Your task to perform on an android device: Do I have any events today? Image 0: 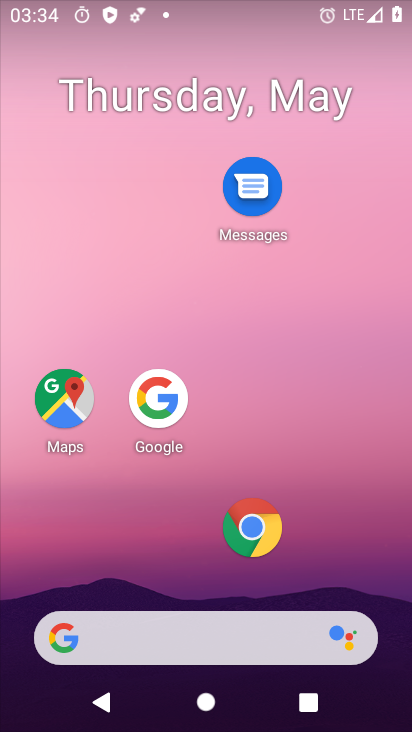
Step 0: drag from (209, 566) to (213, 285)
Your task to perform on an android device: Do I have any events today? Image 1: 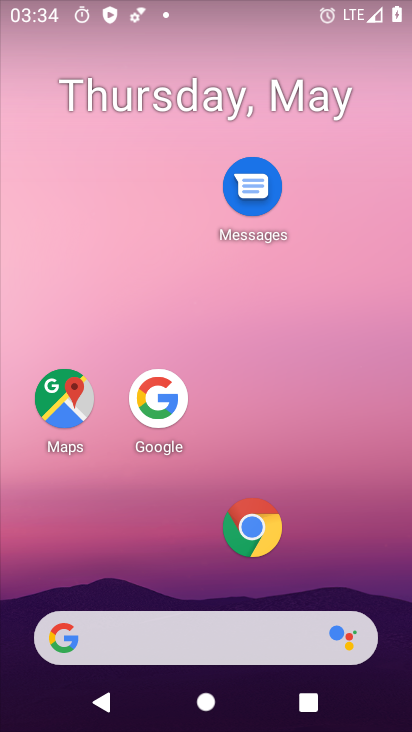
Step 1: drag from (206, 577) to (227, 235)
Your task to perform on an android device: Do I have any events today? Image 2: 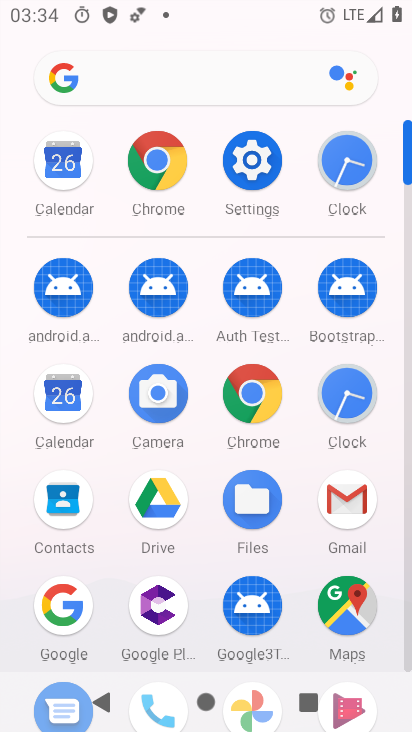
Step 2: click (66, 392)
Your task to perform on an android device: Do I have any events today? Image 3: 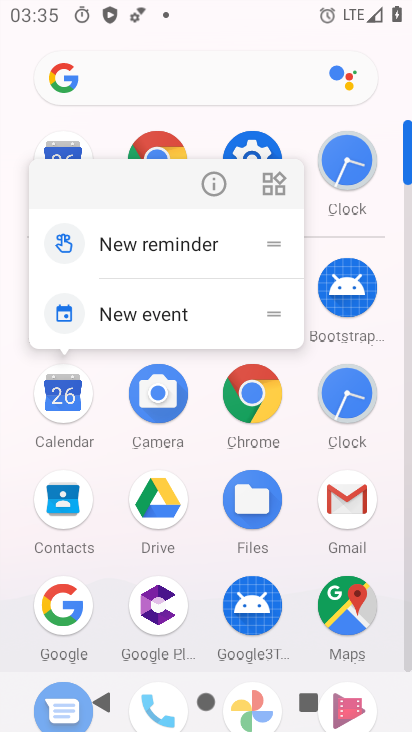
Step 3: click (205, 183)
Your task to perform on an android device: Do I have any events today? Image 4: 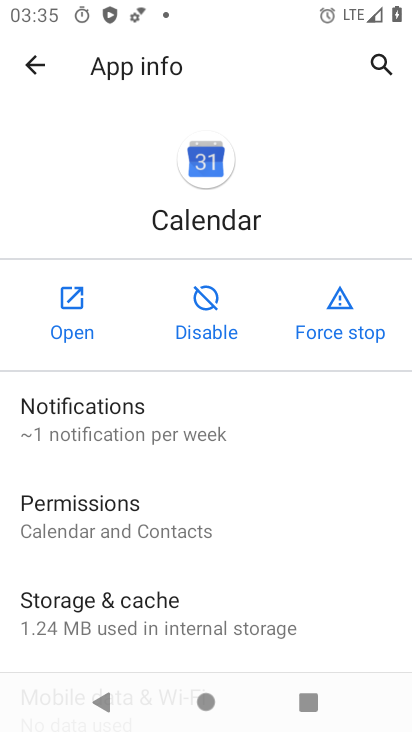
Step 4: click (66, 302)
Your task to perform on an android device: Do I have any events today? Image 5: 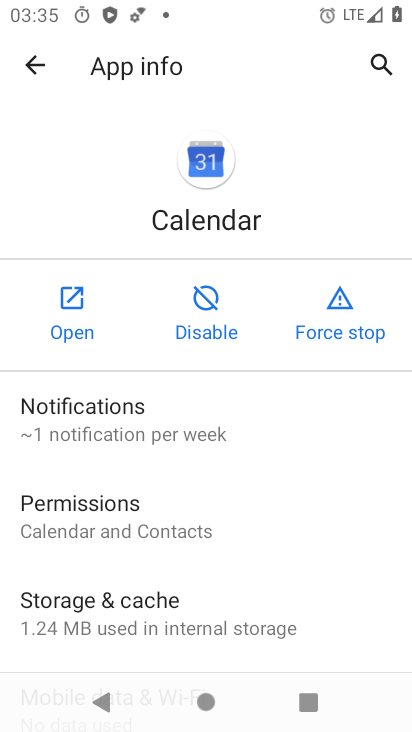
Step 5: click (66, 302)
Your task to perform on an android device: Do I have any events today? Image 6: 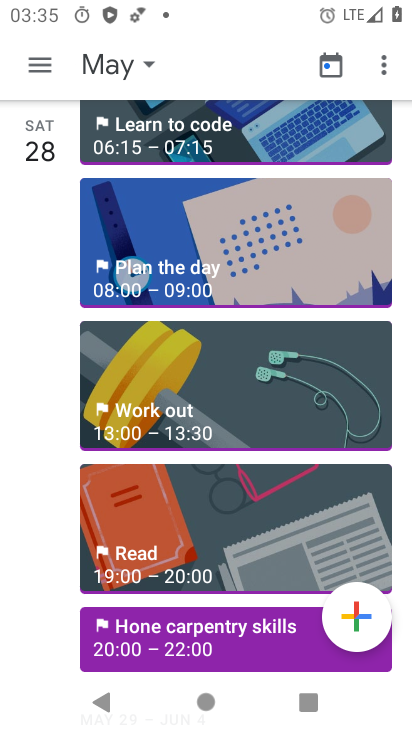
Step 6: click (139, 65)
Your task to perform on an android device: Do I have any events today? Image 7: 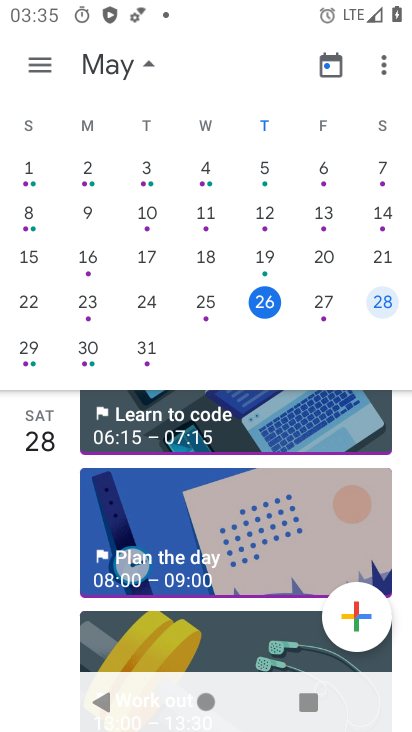
Step 7: click (272, 295)
Your task to perform on an android device: Do I have any events today? Image 8: 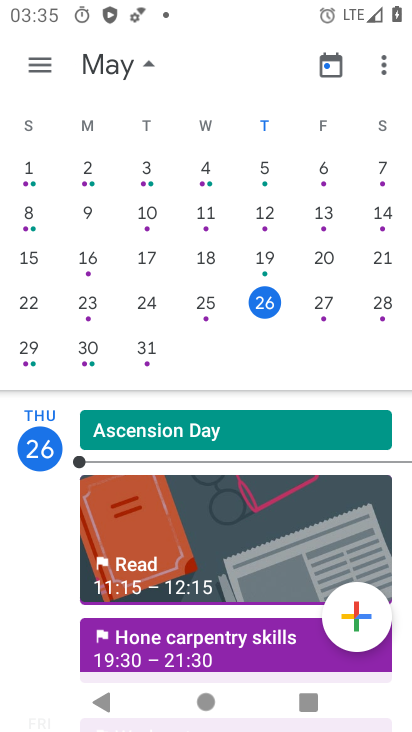
Step 8: task complete